Your task to perform on an android device: change keyboard looks Image 0: 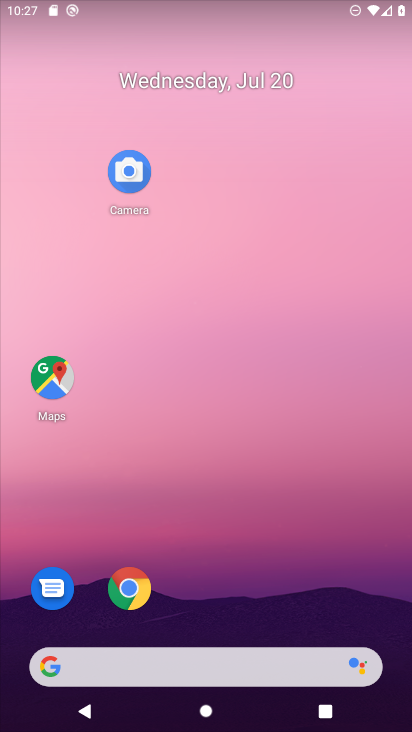
Step 0: drag from (191, 200) to (179, 73)
Your task to perform on an android device: change keyboard looks Image 1: 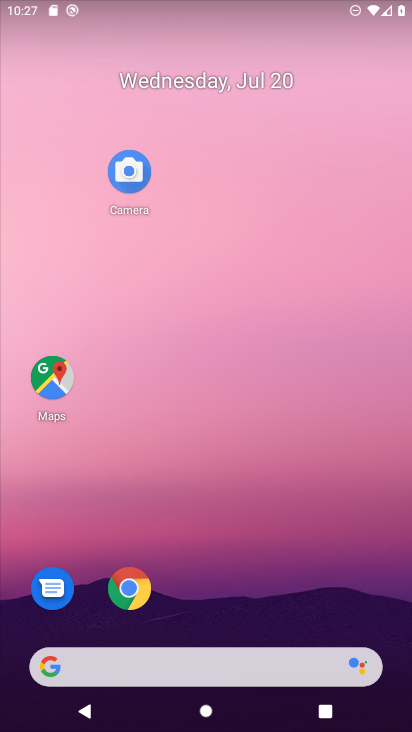
Step 1: drag from (283, 558) to (260, 119)
Your task to perform on an android device: change keyboard looks Image 2: 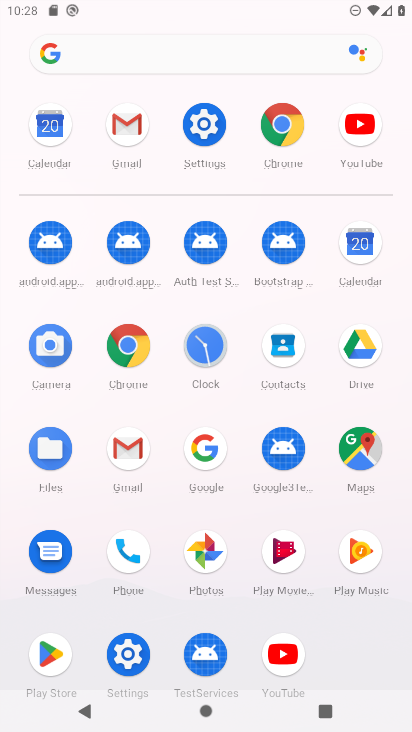
Step 2: click (210, 121)
Your task to perform on an android device: change keyboard looks Image 3: 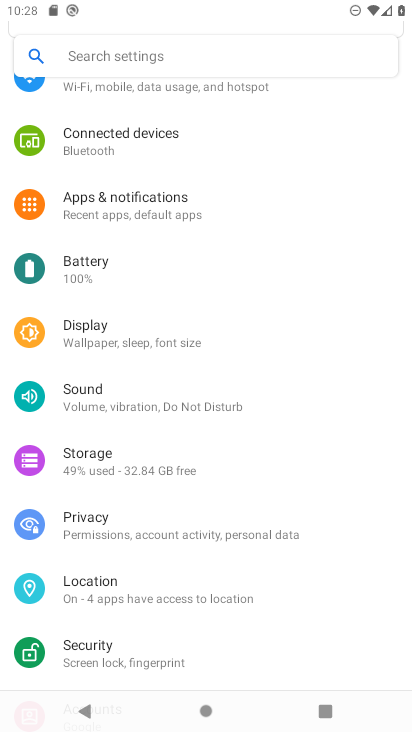
Step 3: drag from (137, 629) to (117, 133)
Your task to perform on an android device: change keyboard looks Image 4: 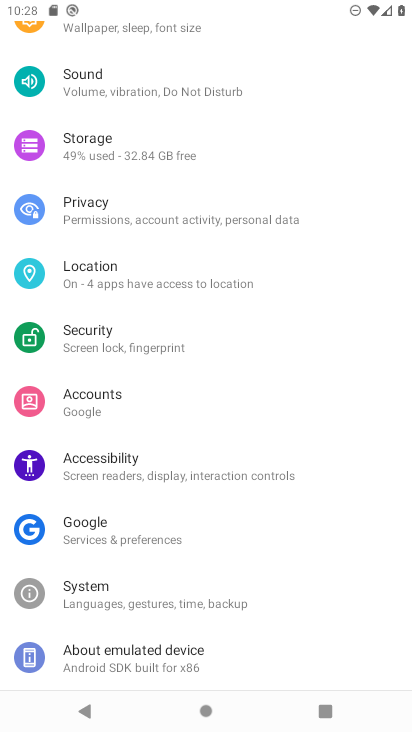
Step 4: click (130, 603)
Your task to perform on an android device: change keyboard looks Image 5: 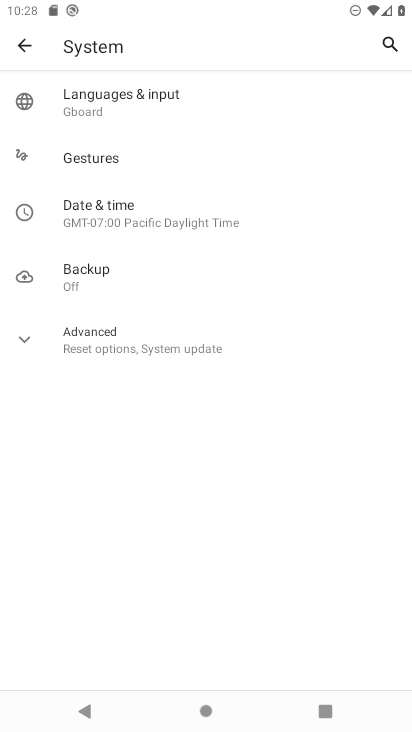
Step 5: click (132, 92)
Your task to perform on an android device: change keyboard looks Image 6: 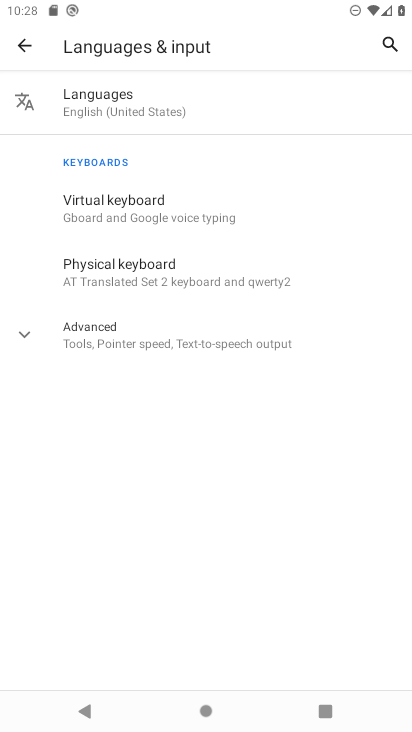
Step 6: click (124, 197)
Your task to perform on an android device: change keyboard looks Image 7: 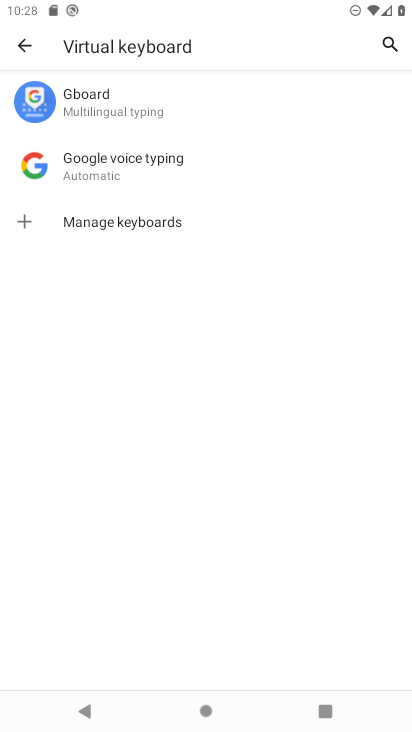
Step 7: click (83, 104)
Your task to perform on an android device: change keyboard looks Image 8: 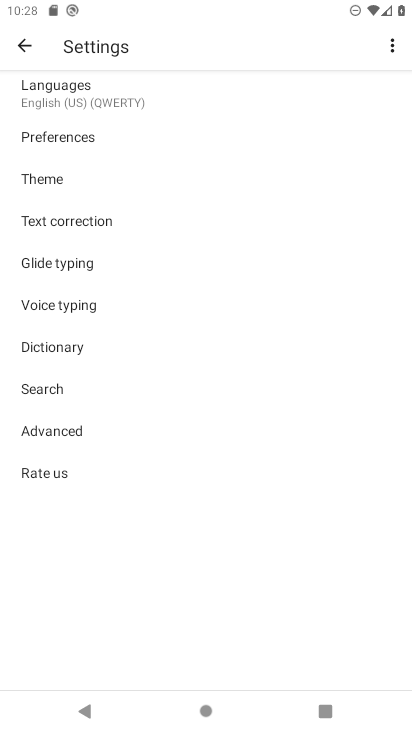
Step 8: click (28, 182)
Your task to perform on an android device: change keyboard looks Image 9: 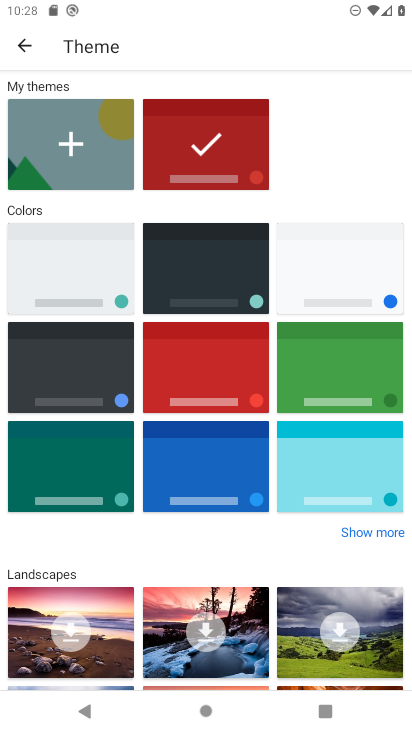
Step 9: click (238, 477)
Your task to perform on an android device: change keyboard looks Image 10: 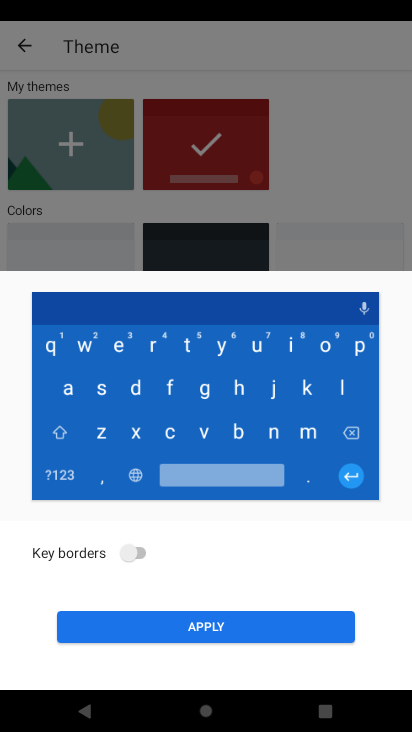
Step 10: click (239, 629)
Your task to perform on an android device: change keyboard looks Image 11: 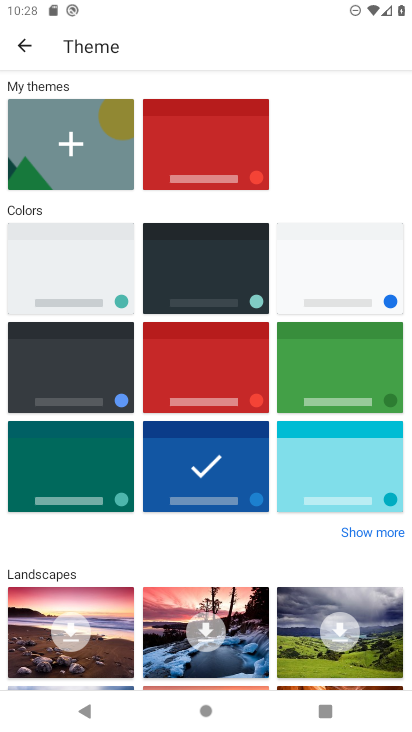
Step 11: task complete